Your task to perform on an android device: What is the recent news? Image 0: 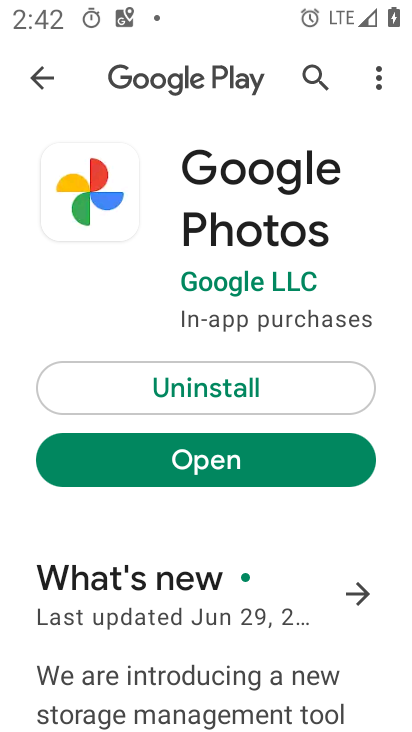
Step 0: press home button
Your task to perform on an android device: What is the recent news? Image 1: 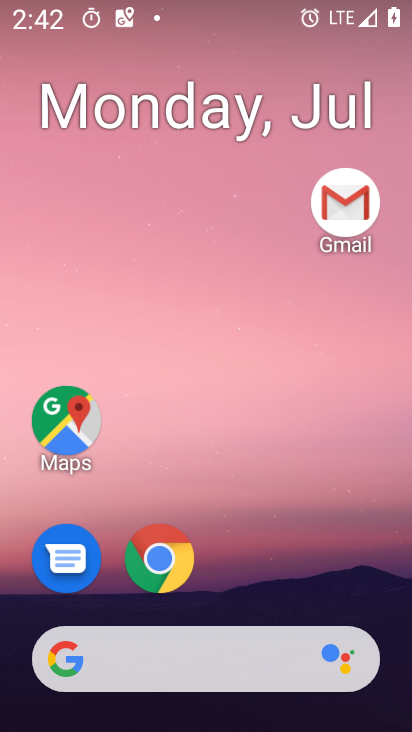
Step 1: task complete